Your task to perform on an android device: Play the last video I watched on Youtube Image 0: 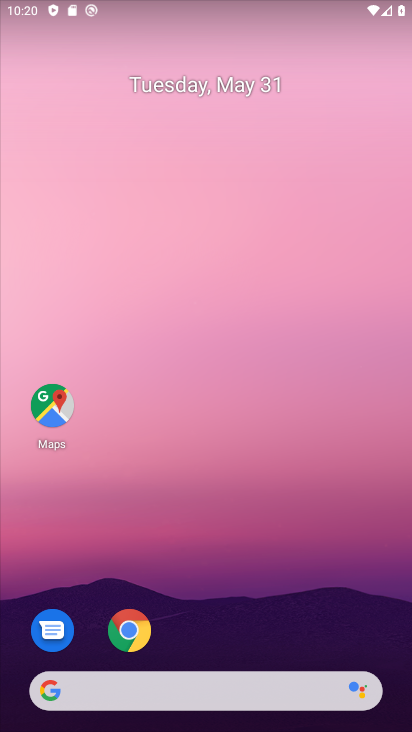
Step 0: drag from (303, 443) to (304, 90)
Your task to perform on an android device: Play the last video I watched on Youtube Image 1: 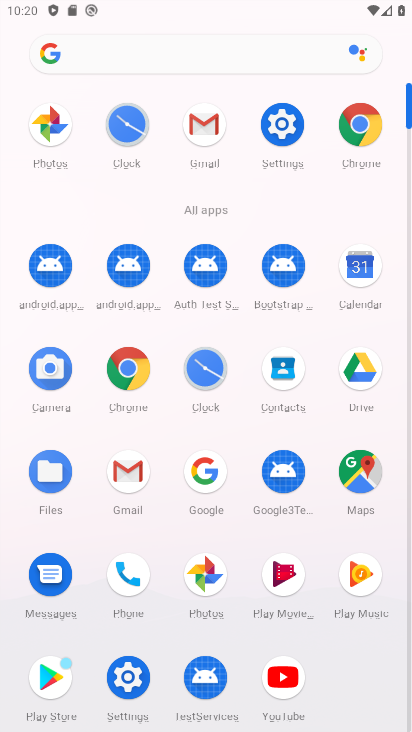
Step 1: click (284, 684)
Your task to perform on an android device: Play the last video I watched on Youtube Image 2: 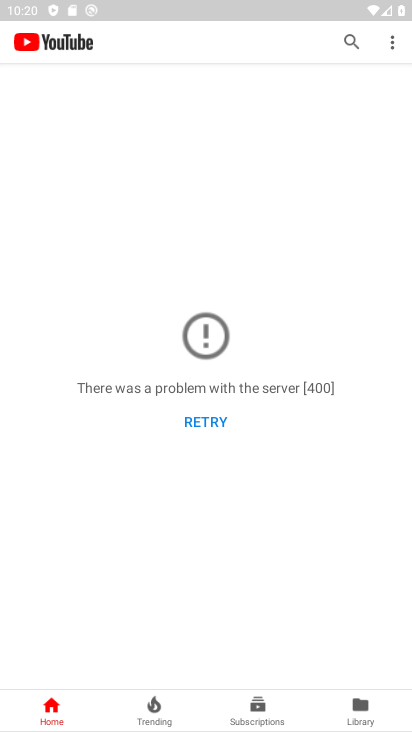
Step 2: task complete